Your task to perform on an android device: Is it going to rain this weekend? Image 0: 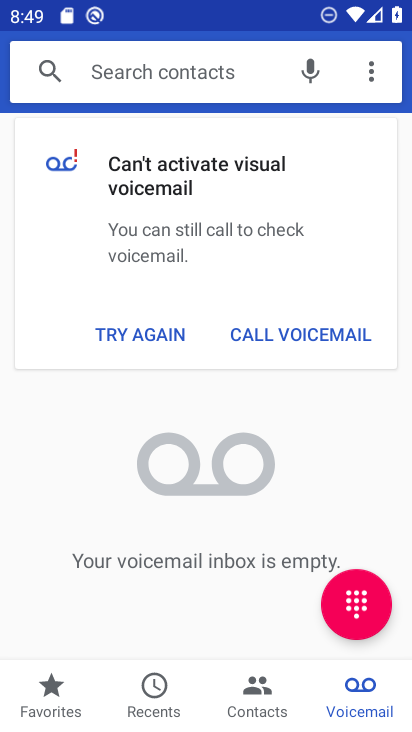
Step 0: press home button
Your task to perform on an android device: Is it going to rain this weekend? Image 1: 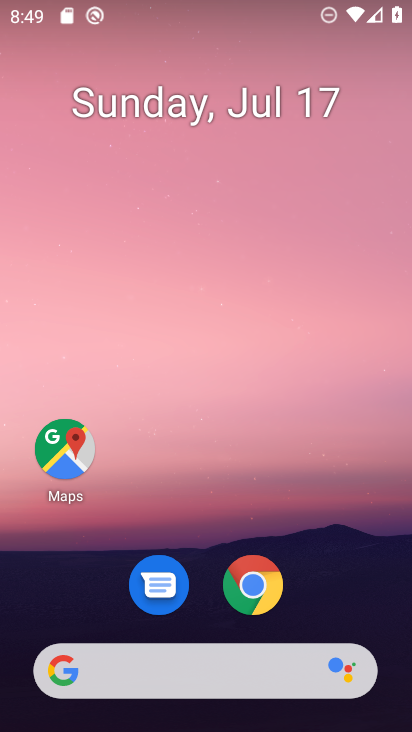
Step 1: click (160, 678)
Your task to perform on an android device: Is it going to rain this weekend? Image 2: 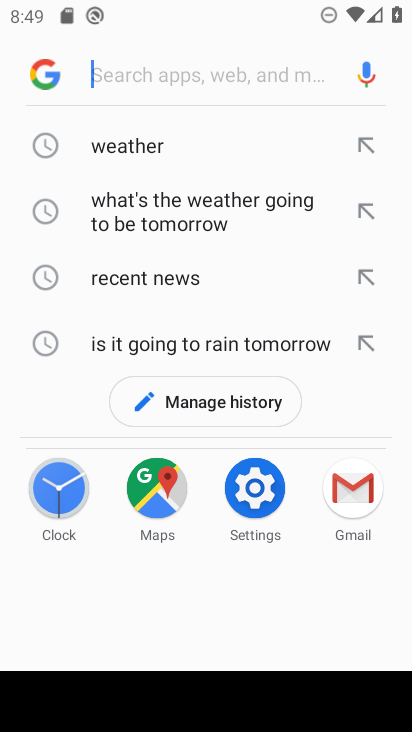
Step 2: click (109, 145)
Your task to perform on an android device: Is it going to rain this weekend? Image 3: 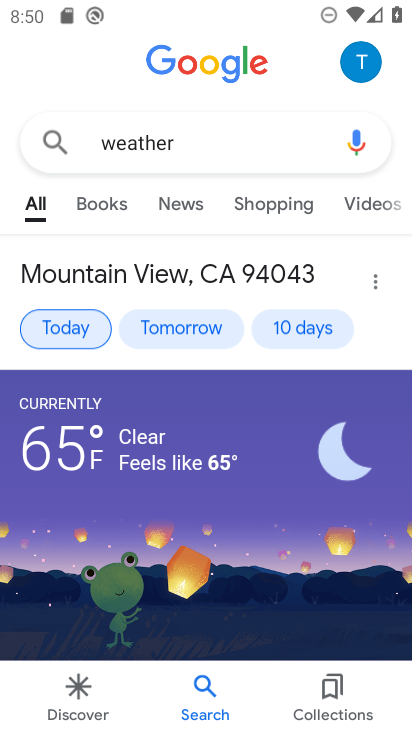
Step 3: click (314, 334)
Your task to perform on an android device: Is it going to rain this weekend? Image 4: 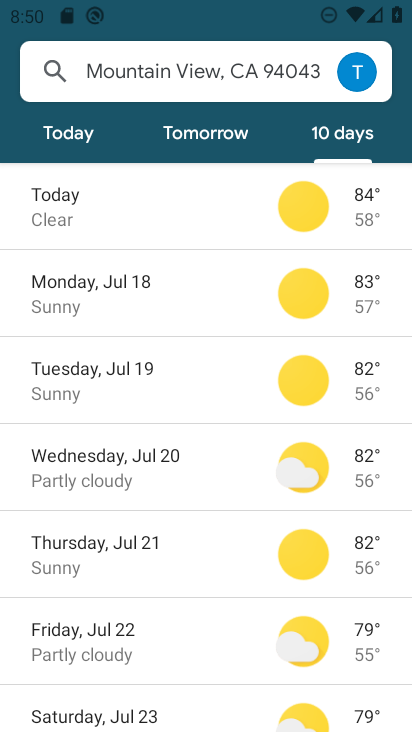
Step 4: drag from (176, 617) to (273, 214)
Your task to perform on an android device: Is it going to rain this weekend? Image 5: 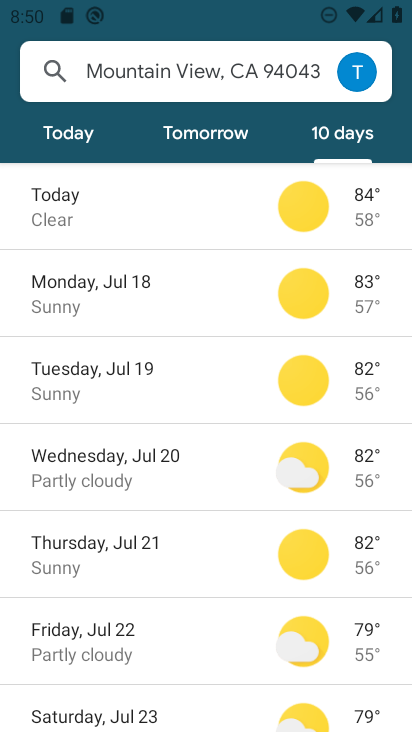
Step 5: drag from (200, 576) to (171, 140)
Your task to perform on an android device: Is it going to rain this weekend? Image 6: 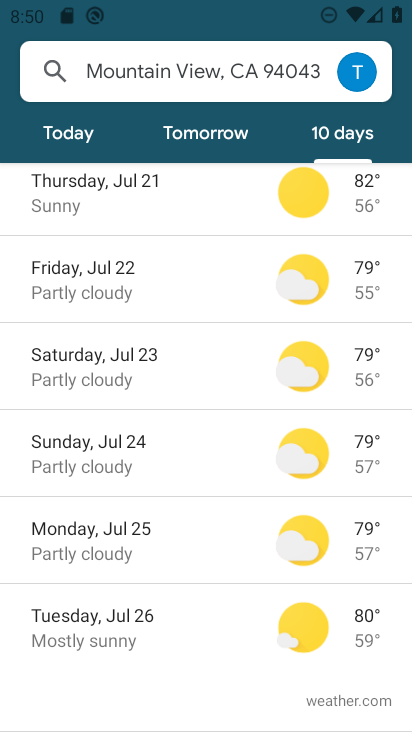
Step 6: click (113, 371)
Your task to perform on an android device: Is it going to rain this weekend? Image 7: 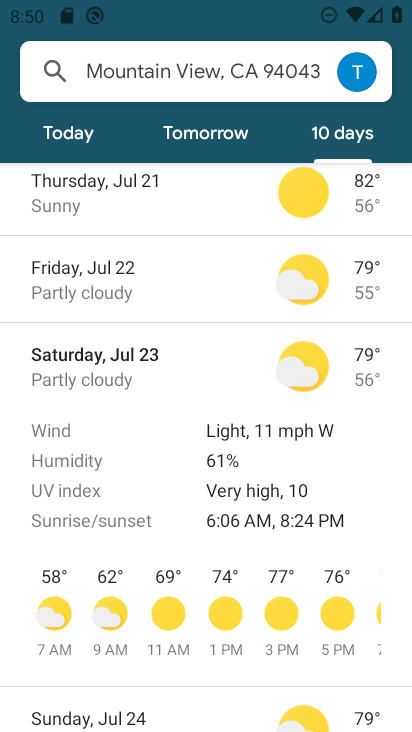
Step 7: task complete